Your task to perform on an android device: toggle notifications settings in the gmail app Image 0: 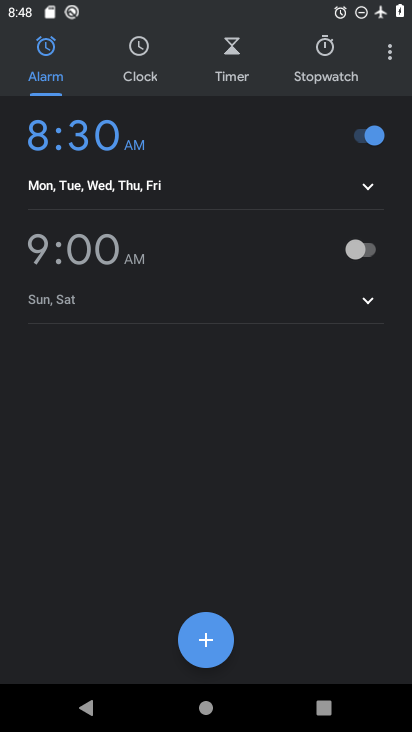
Step 0: press home button
Your task to perform on an android device: toggle notifications settings in the gmail app Image 1: 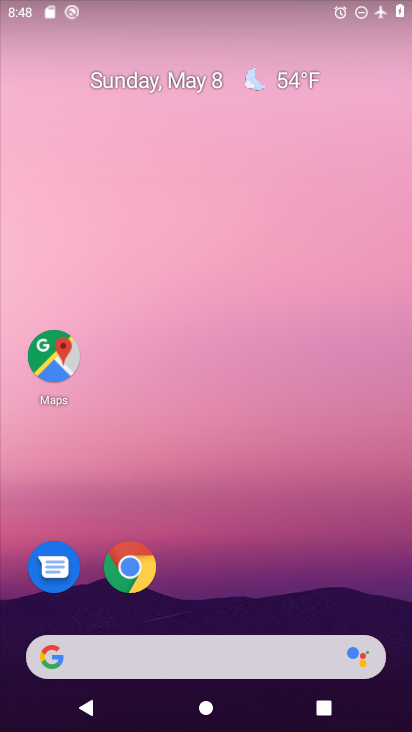
Step 1: drag from (371, 443) to (410, 39)
Your task to perform on an android device: toggle notifications settings in the gmail app Image 2: 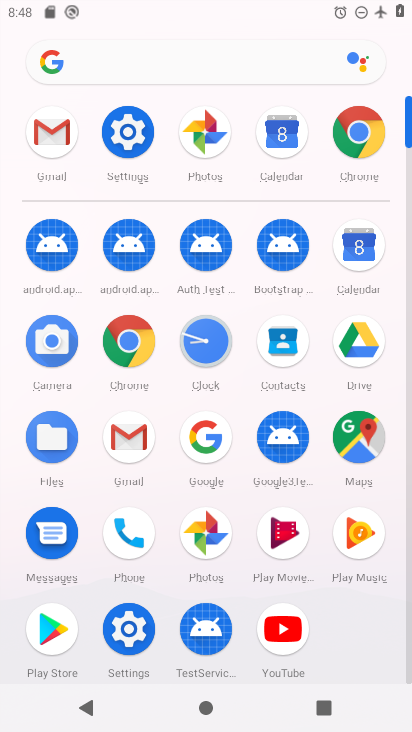
Step 2: click (52, 150)
Your task to perform on an android device: toggle notifications settings in the gmail app Image 3: 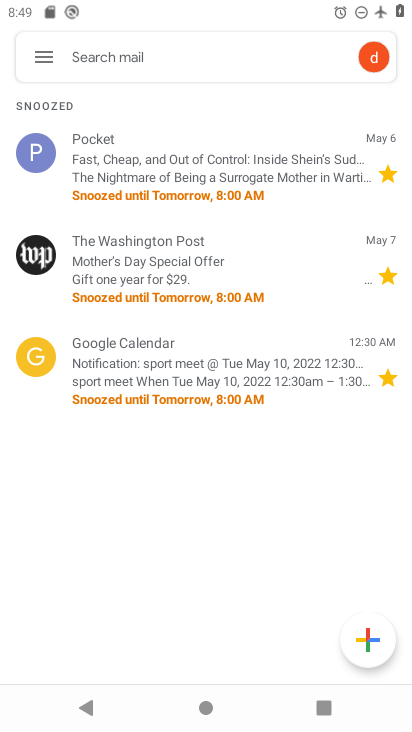
Step 3: click (40, 60)
Your task to perform on an android device: toggle notifications settings in the gmail app Image 4: 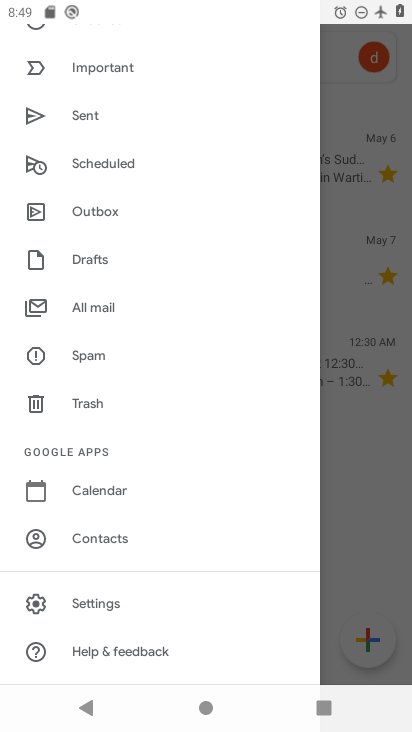
Step 4: click (121, 608)
Your task to perform on an android device: toggle notifications settings in the gmail app Image 5: 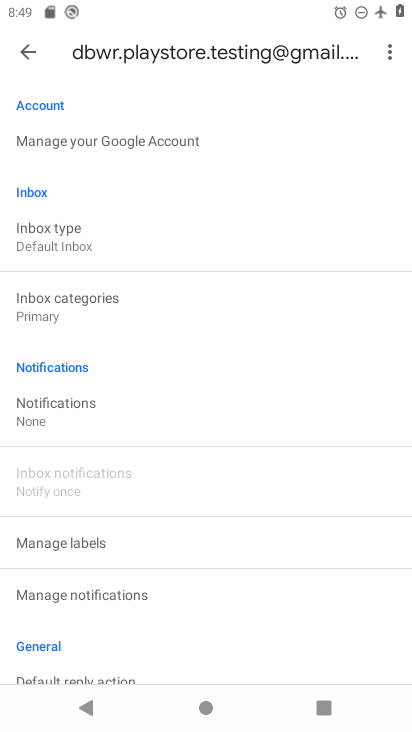
Step 5: click (60, 427)
Your task to perform on an android device: toggle notifications settings in the gmail app Image 6: 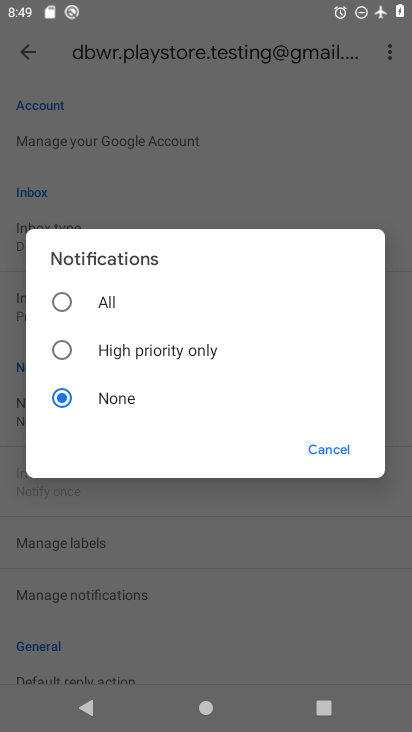
Step 6: click (65, 307)
Your task to perform on an android device: toggle notifications settings in the gmail app Image 7: 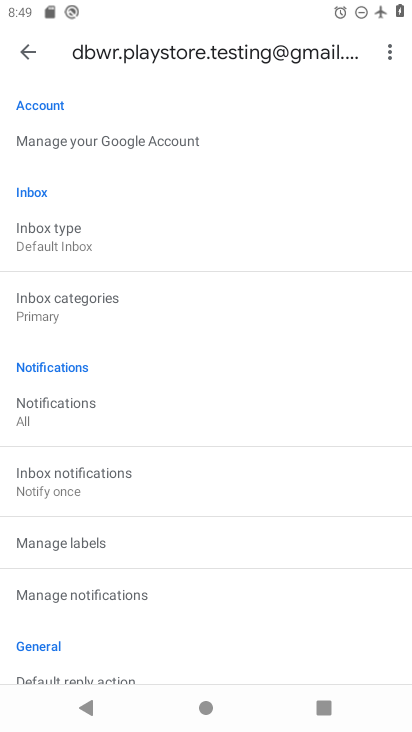
Step 7: task complete